Your task to perform on an android device: Go to Android settings Image 0: 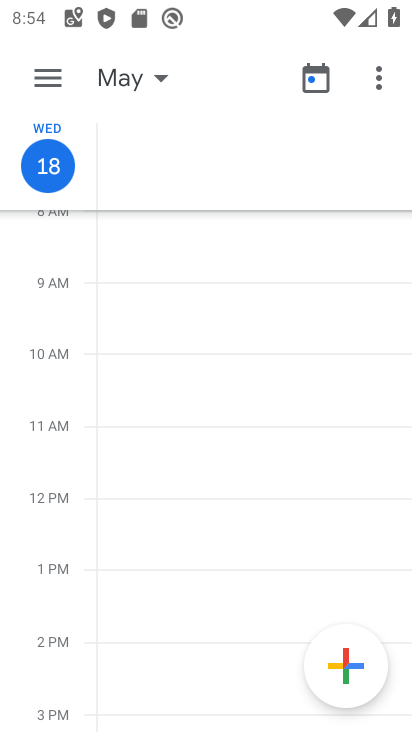
Step 0: press home button
Your task to perform on an android device: Go to Android settings Image 1: 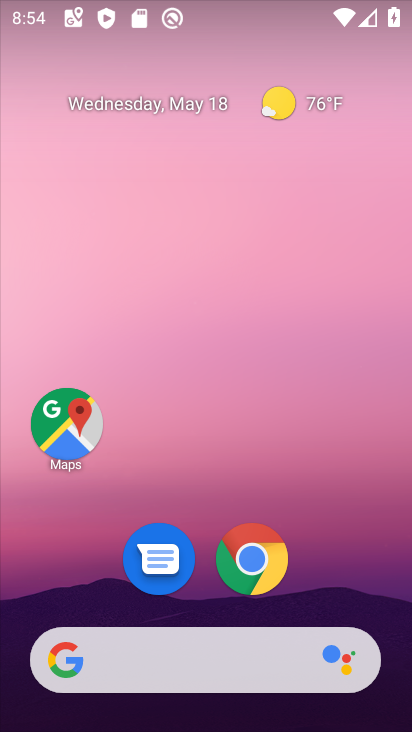
Step 1: drag from (219, 598) to (183, 79)
Your task to perform on an android device: Go to Android settings Image 2: 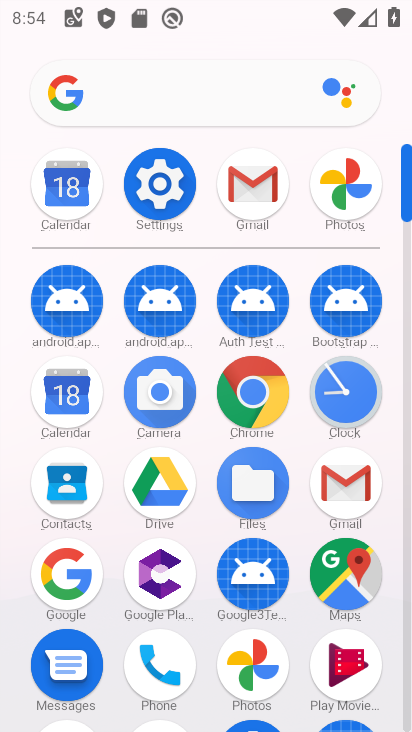
Step 2: click (148, 185)
Your task to perform on an android device: Go to Android settings Image 3: 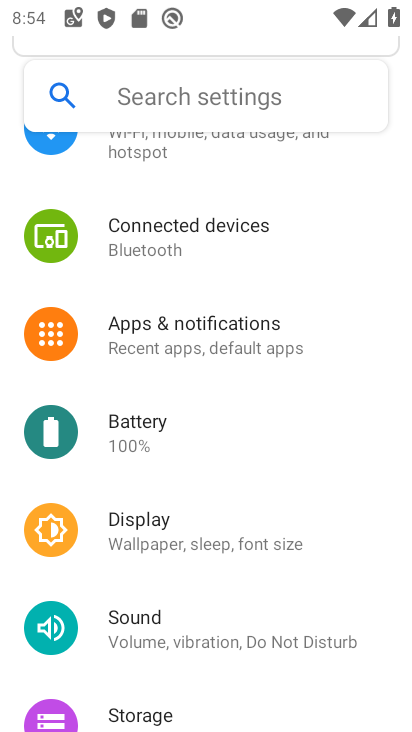
Step 3: task complete